Your task to perform on an android device: Open the web browser Image 0: 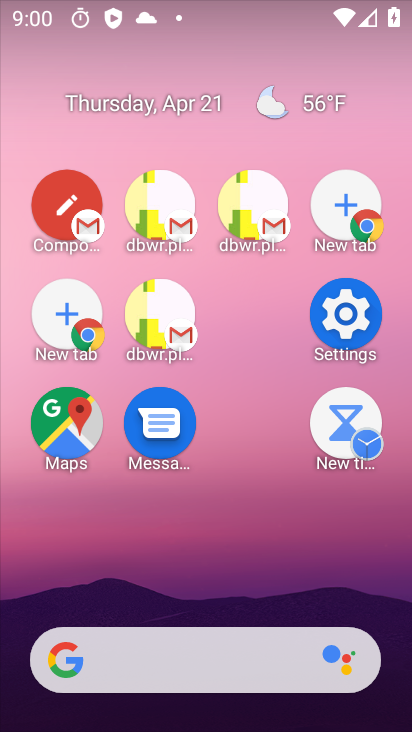
Step 0: drag from (242, 549) to (185, 211)
Your task to perform on an android device: Open the web browser Image 1: 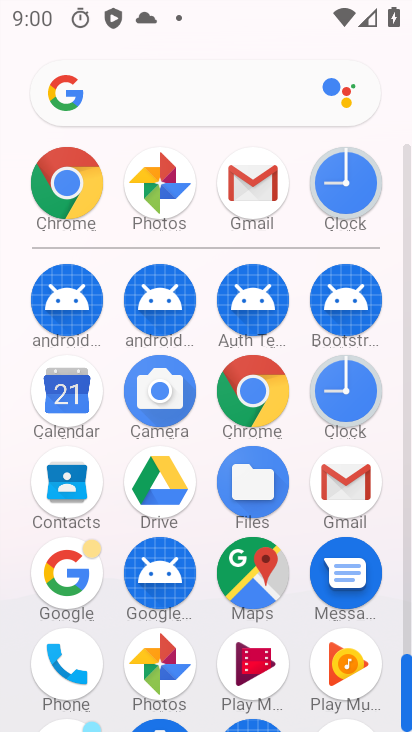
Step 1: click (64, 200)
Your task to perform on an android device: Open the web browser Image 2: 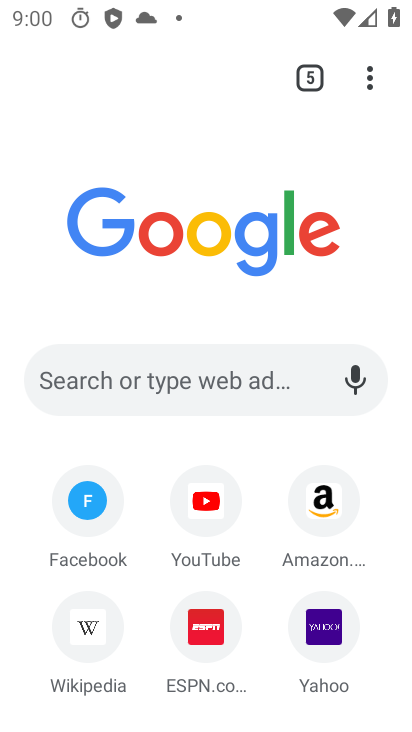
Step 2: click (185, 375)
Your task to perform on an android device: Open the web browser Image 3: 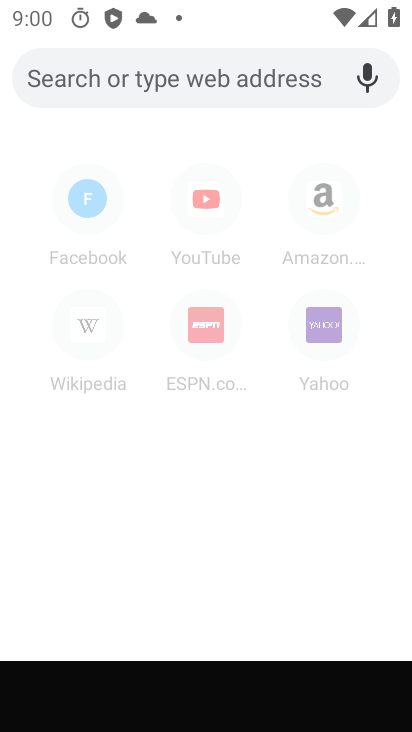
Step 3: task complete